Your task to perform on an android device: open device folders in google photos Image 0: 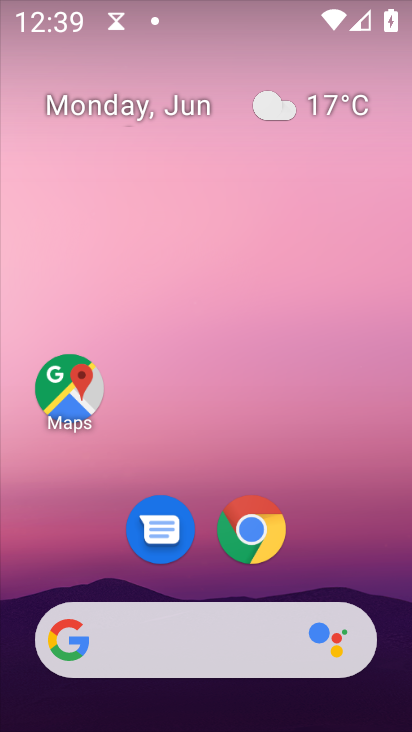
Step 0: drag from (342, 529) to (280, 5)
Your task to perform on an android device: open device folders in google photos Image 1: 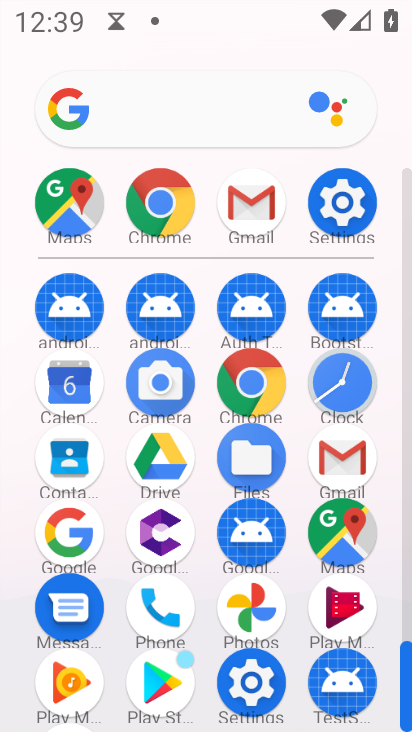
Step 1: click (254, 601)
Your task to perform on an android device: open device folders in google photos Image 2: 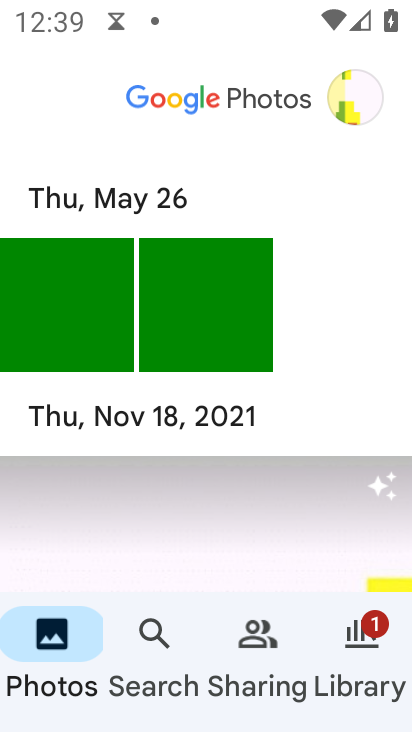
Step 2: task complete